Your task to perform on an android device: toggle notifications settings in the gmail app Image 0: 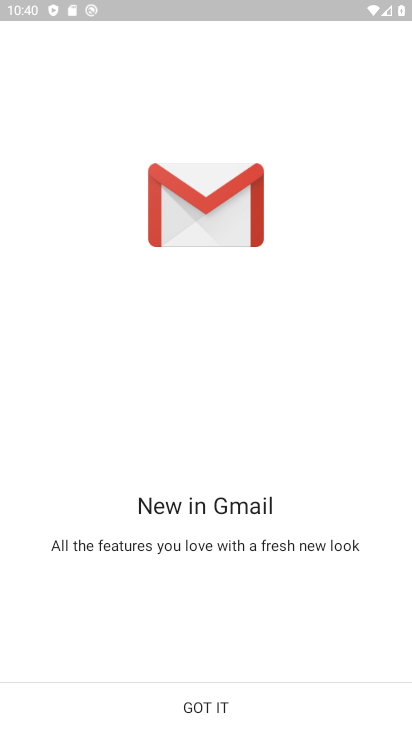
Step 0: press home button
Your task to perform on an android device: toggle notifications settings in the gmail app Image 1: 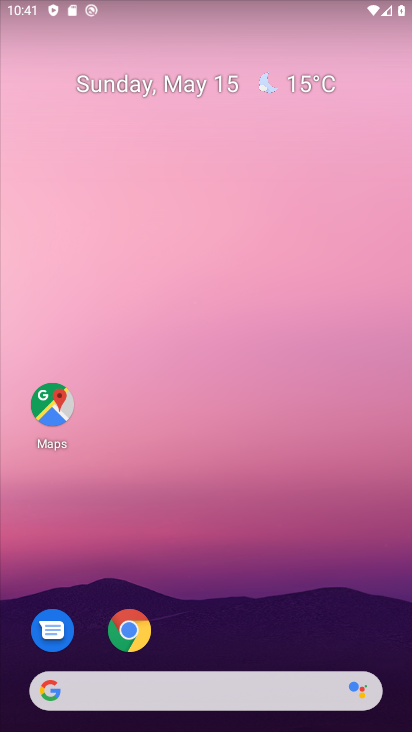
Step 1: drag from (376, 608) to (387, 75)
Your task to perform on an android device: toggle notifications settings in the gmail app Image 2: 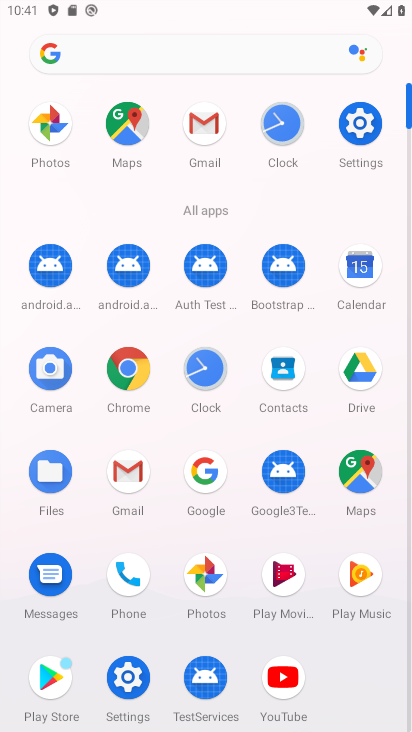
Step 2: click (122, 483)
Your task to perform on an android device: toggle notifications settings in the gmail app Image 3: 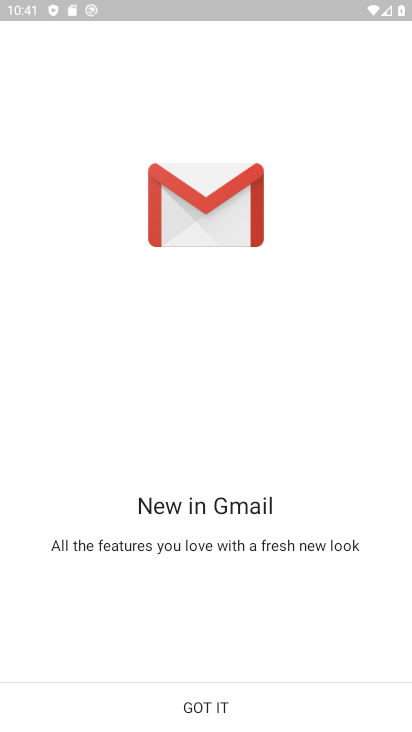
Step 3: click (213, 710)
Your task to perform on an android device: toggle notifications settings in the gmail app Image 4: 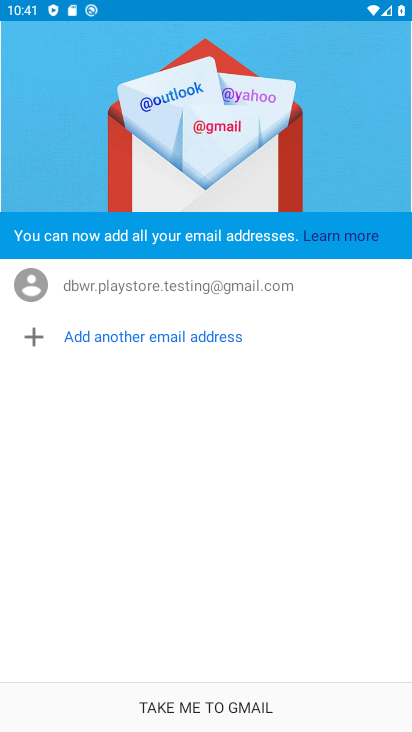
Step 4: click (226, 701)
Your task to perform on an android device: toggle notifications settings in the gmail app Image 5: 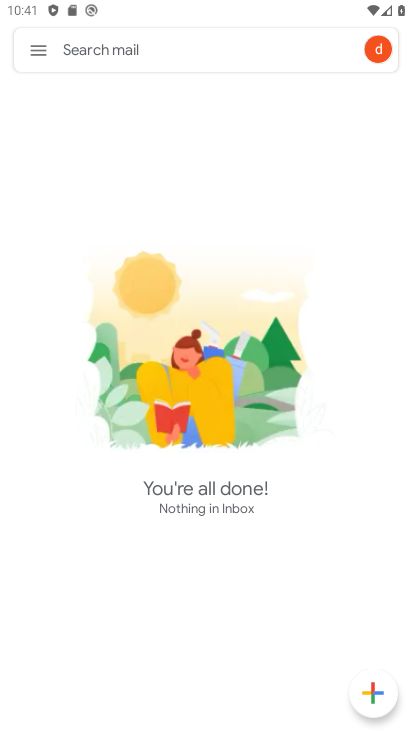
Step 5: click (41, 45)
Your task to perform on an android device: toggle notifications settings in the gmail app Image 6: 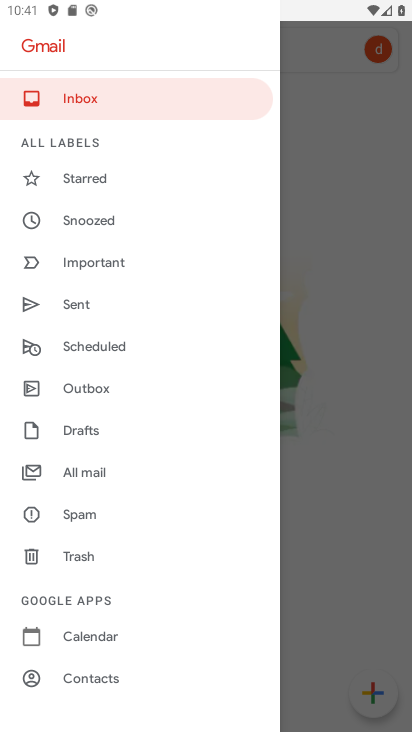
Step 6: drag from (181, 621) to (200, 328)
Your task to perform on an android device: toggle notifications settings in the gmail app Image 7: 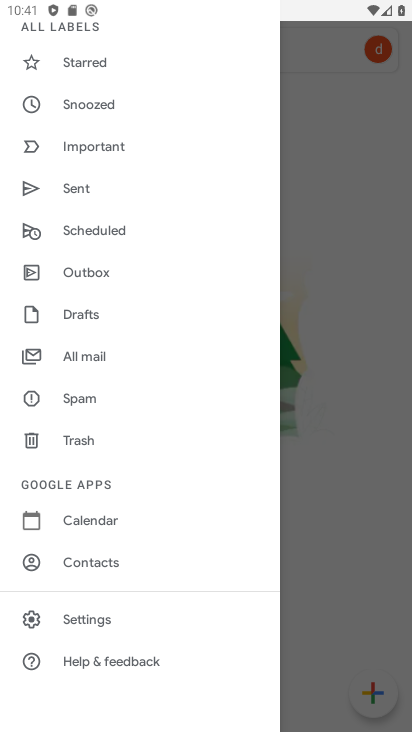
Step 7: click (102, 630)
Your task to perform on an android device: toggle notifications settings in the gmail app Image 8: 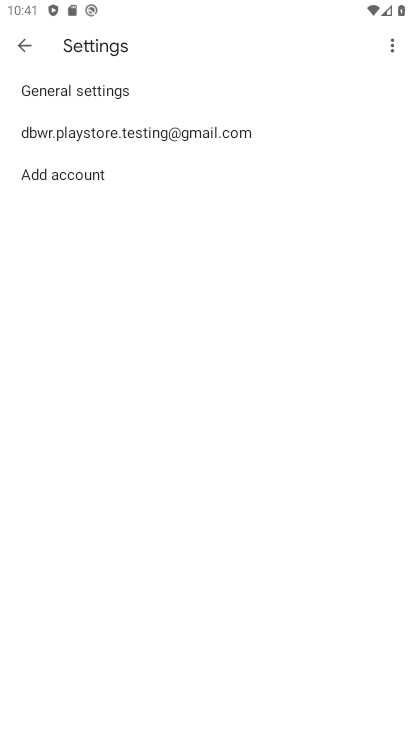
Step 8: click (206, 129)
Your task to perform on an android device: toggle notifications settings in the gmail app Image 9: 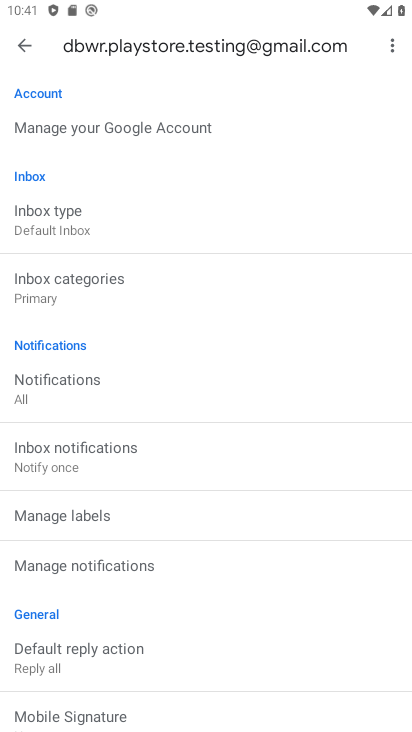
Step 9: drag from (256, 630) to (259, 454)
Your task to perform on an android device: toggle notifications settings in the gmail app Image 10: 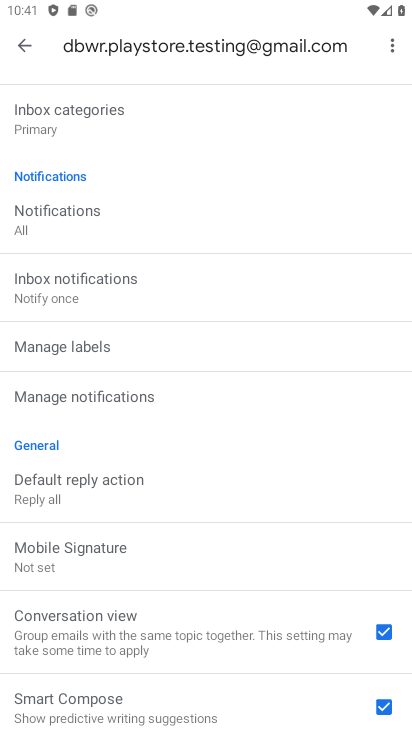
Step 10: click (86, 398)
Your task to perform on an android device: toggle notifications settings in the gmail app Image 11: 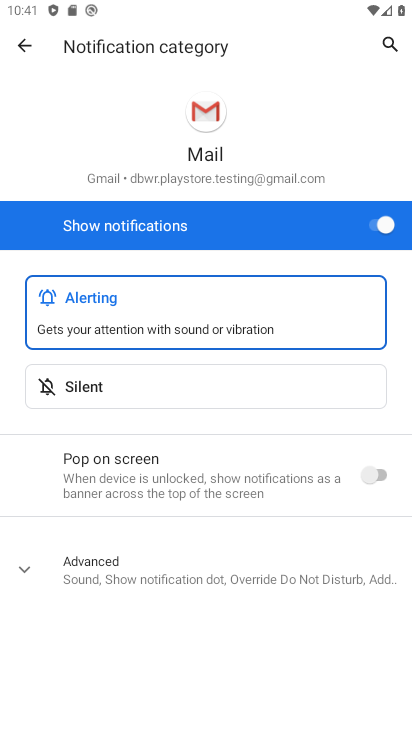
Step 11: click (373, 227)
Your task to perform on an android device: toggle notifications settings in the gmail app Image 12: 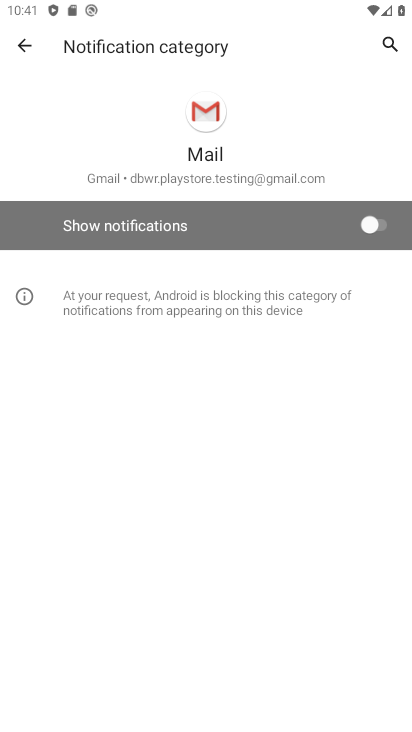
Step 12: task complete